Your task to perform on an android device: Open location settings Image 0: 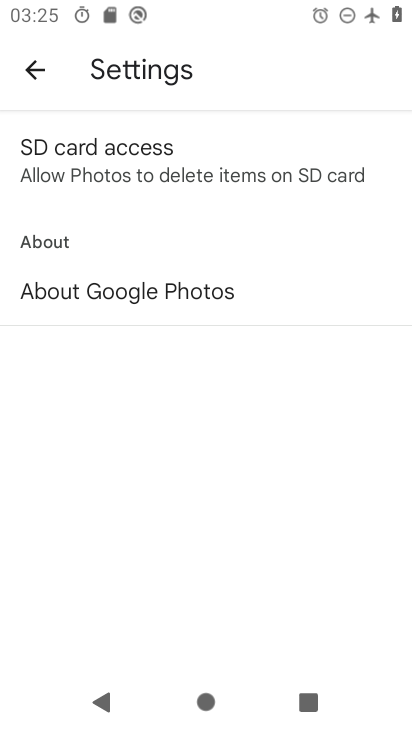
Step 0: drag from (226, 519) to (313, 252)
Your task to perform on an android device: Open location settings Image 1: 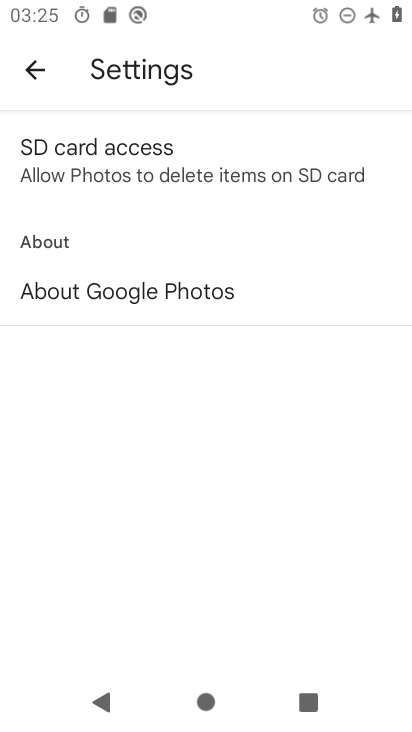
Step 1: press home button
Your task to perform on an android device: Open location settings Image 2: 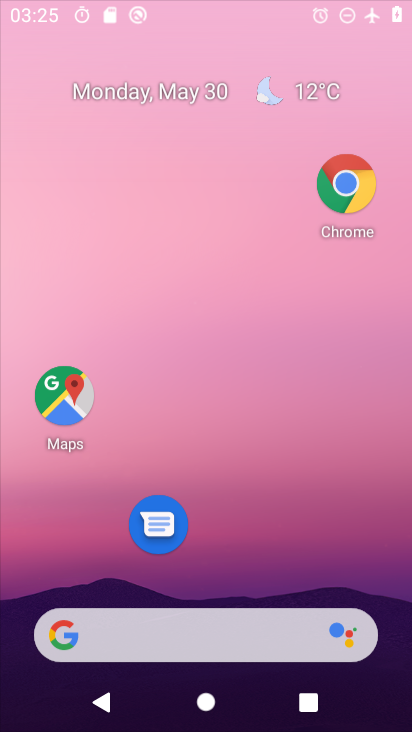
Step 2: drag from (154, 482) to (268, 16)
Your task to perform on an android device: Open location settings Image 3: 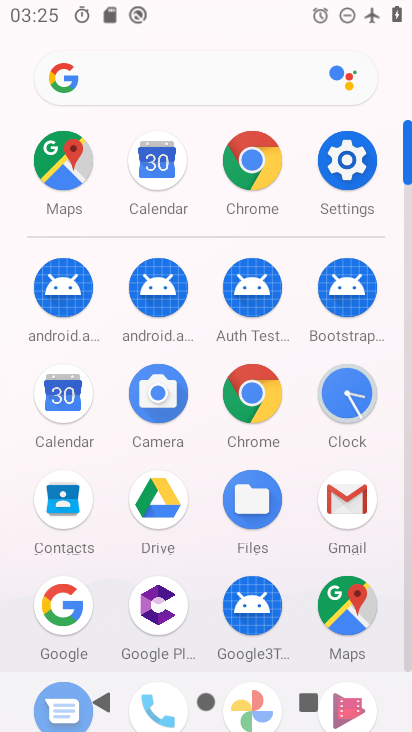
Step 3: click (335, 173)
Your task to perform on an android device: Open location settings Image 4: 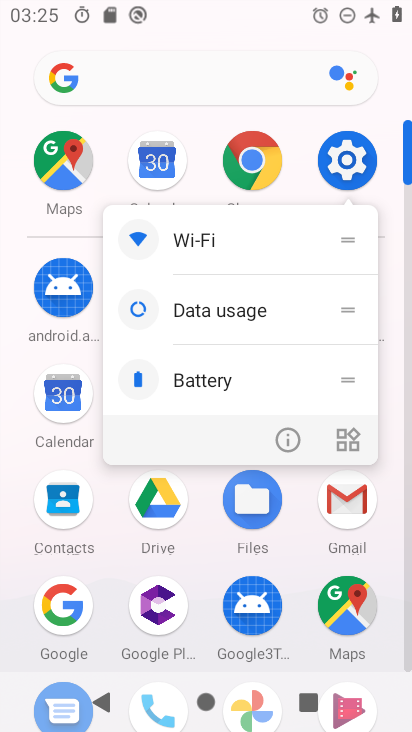
Step 4: click (288, 446)
Your task to perform on an android device: Open location settings Image 5: 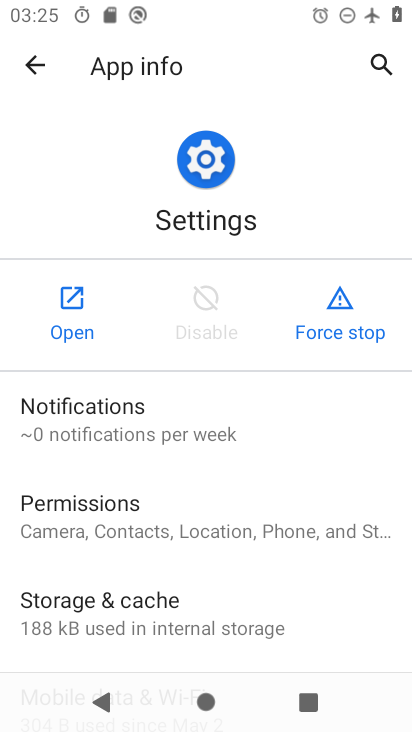
Step 5: click (68, 323)
Your task to perform on an android device: Open location settings Image 6: 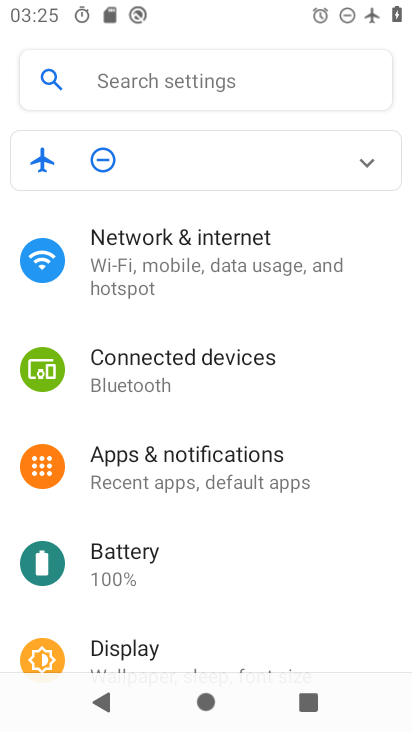
Step 6: drag from (184, 557) to (239, 151)
Your task to perform on an android device: Open location settings Image 7: 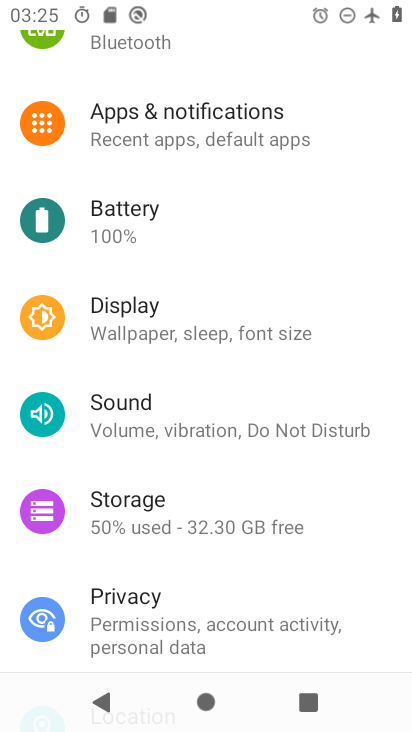
Step 7: drag from (187, 537) to (296, 172)
Your task to perform on an android device: Open location settings Image 8: 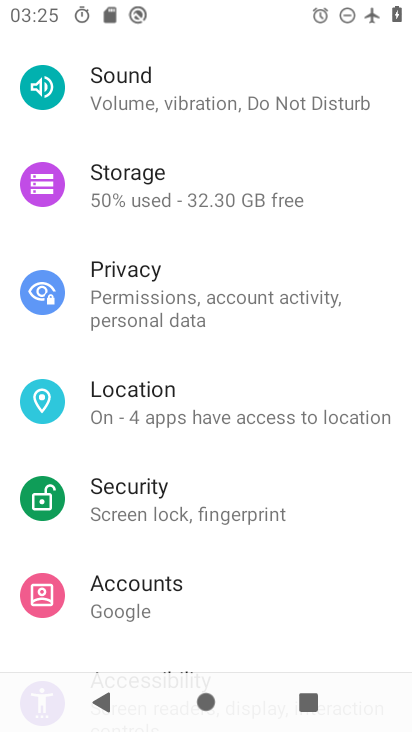
Step 8: click (180, 412)
Your task to perform on an android device: Open location settings Image 9: 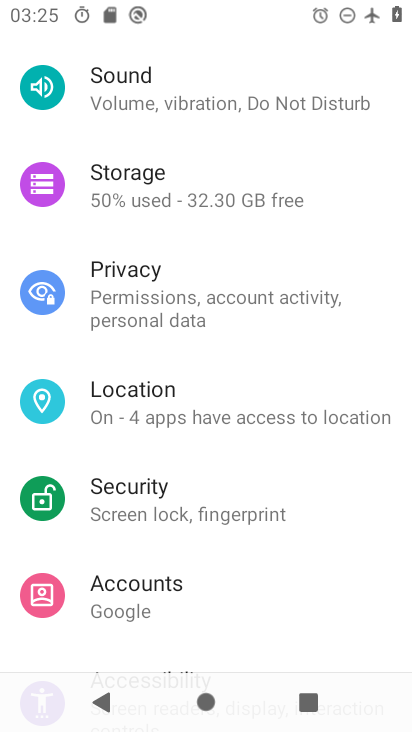
Step 9: click (179, 411)
Your task to perform on an android device: Open location settings Image 10: 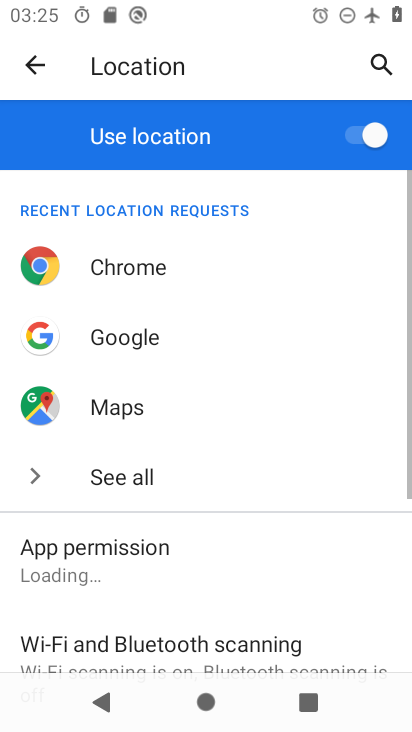
Step 10: task complete